Your task to perform on an android device: change the clock display to digital Image 0: 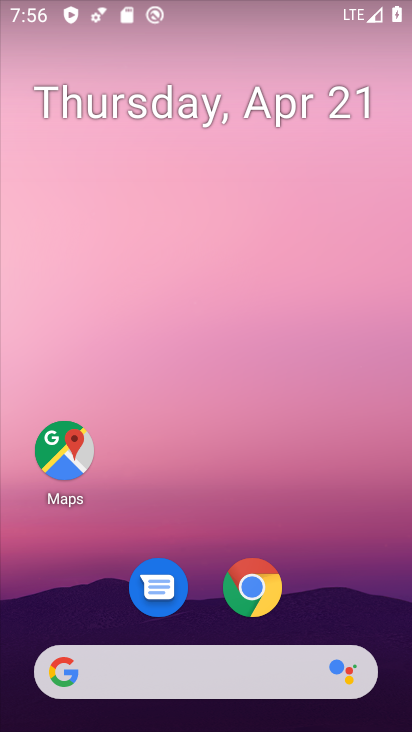
Step 0: drag from (376, 625) to (368, 235)
Your task to perform on an android device: change the clock display to digital Image 1: 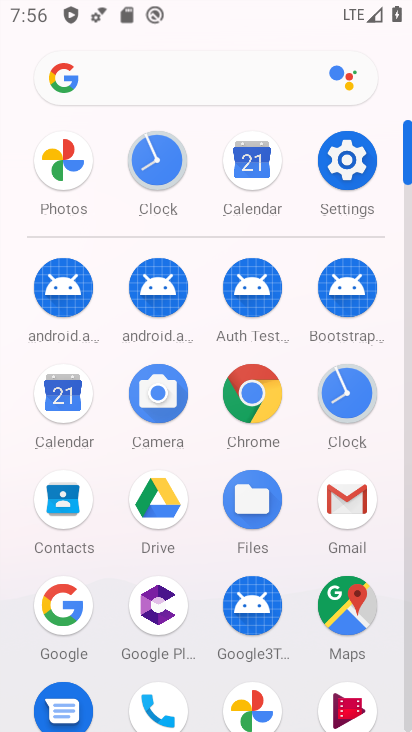
Step 1: click (352, 395)
Your task to perform on an android device: change the clock display to digital Image 2: 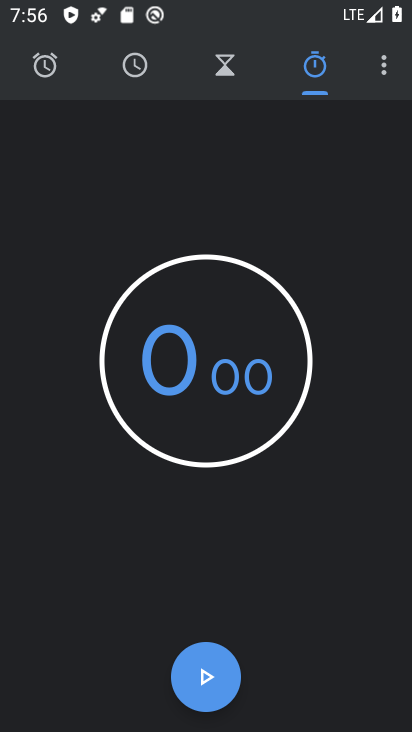
Step 2: click (379, 62)
Your task to perform on an android device: change the clock display to digital Image 3: 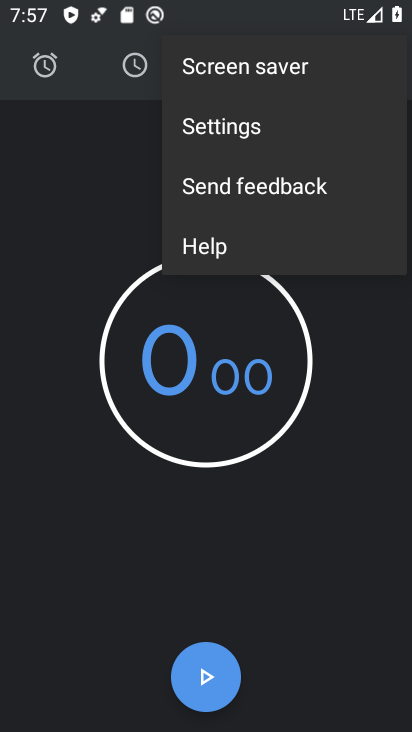
Step 3: click (188, 126)
Your task to perform on an android device: change the clock display to digital Image 4: 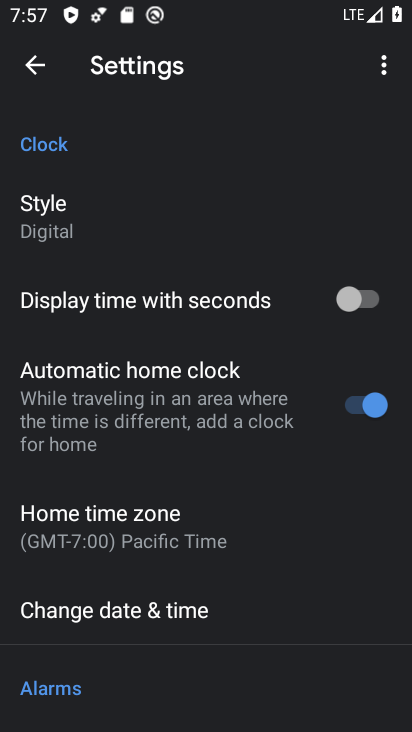
Step 4: click (46, 215)
Your task to perform on an android device: change the clock display to digital Image 5: 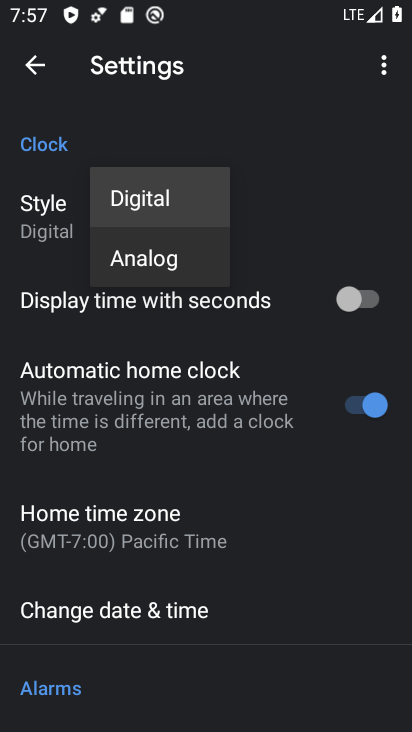
Step 5: click (138, 196)
Your task to perform on an android device: change the clock display to digital Image 6: 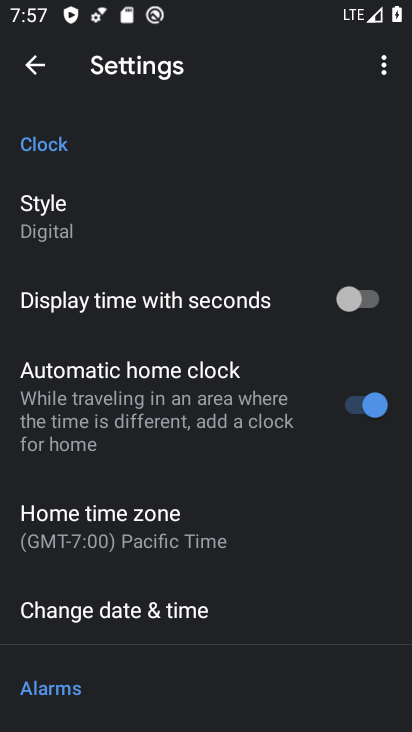
Step 6: task complete